Your task to perform on an android device: What's on my calendar today? Image 0: 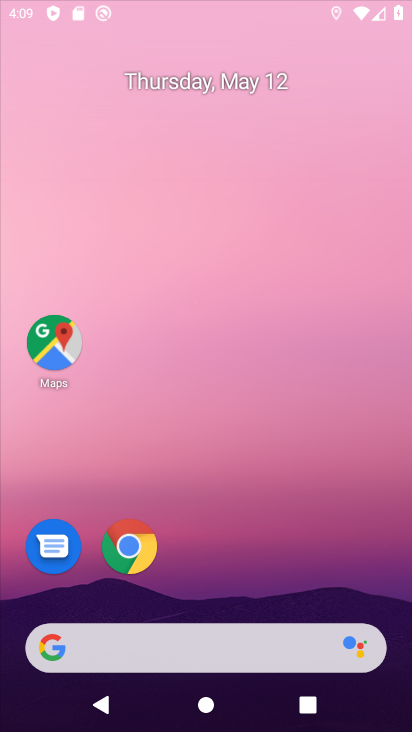
Step 0: drag from (243, 554) to (246, 47)
Your task to perform on an android device: What's on my calendar today? Image 1: 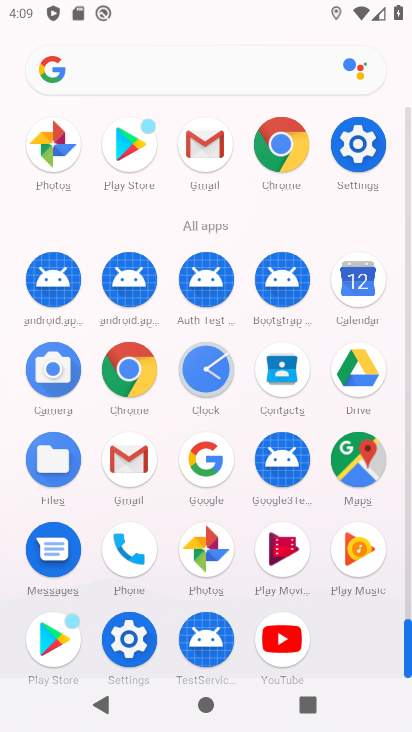
Step 1: drag from (0, 497) to (0, 219)
Your task to perform on an android device: What's on my calendar today? Image 2: 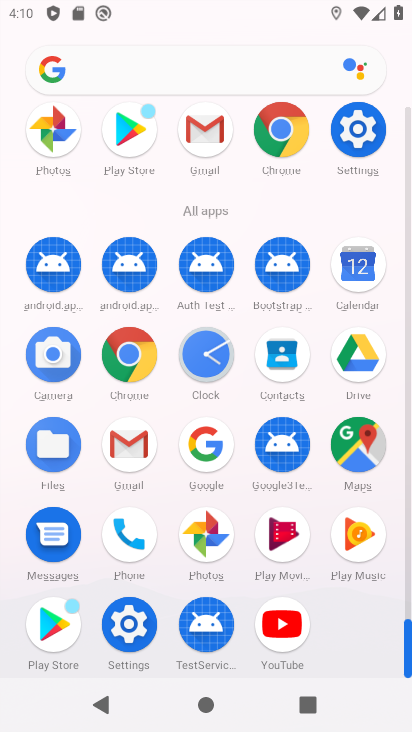
Step 2: click (356, 265)
Your task to perform on an android device: What's on my calendar today? Image 3: 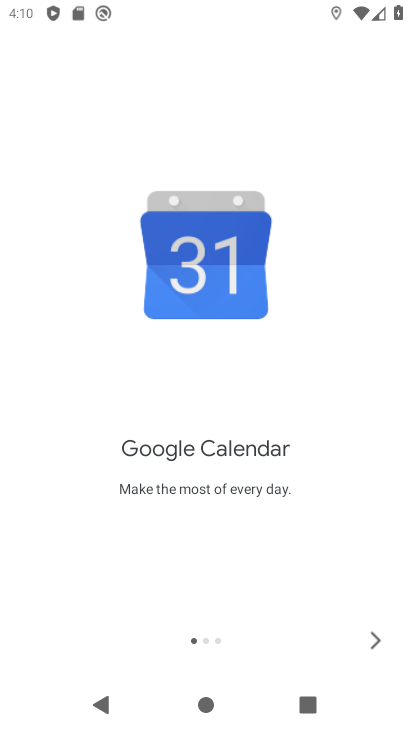
Step 3: click (380, 651)
Your task to perform on an android device: What's on my calendar today? Image 4: 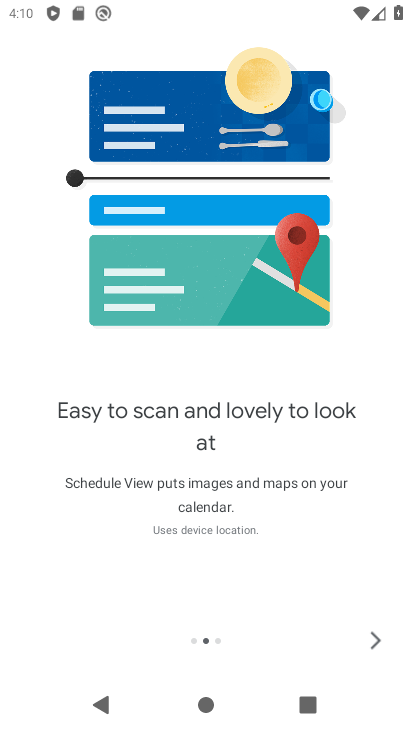
Step 4: click (376, 649)
Your task to perform on an android device: What's on my calendar today? Image 5: 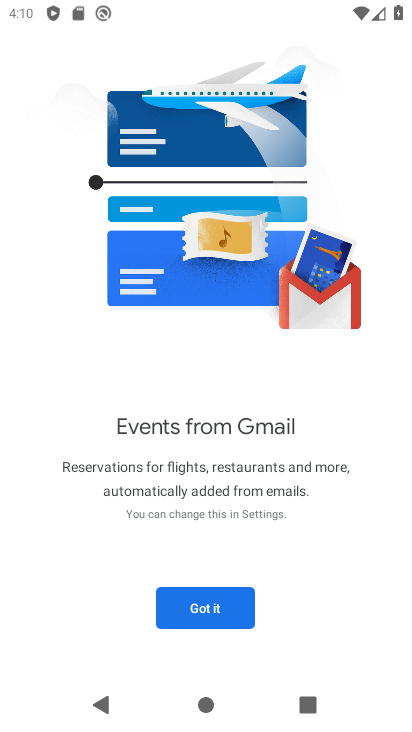
Step 5: click (239, 604)
Your task to perform on an android device: What's on my calendar today? Image 6: 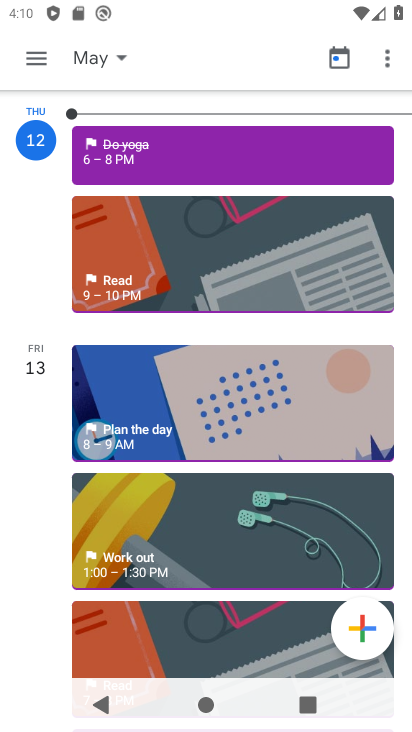
Step 6: task complete